Your task to perform on an android device: set the stopwatch Image 0: 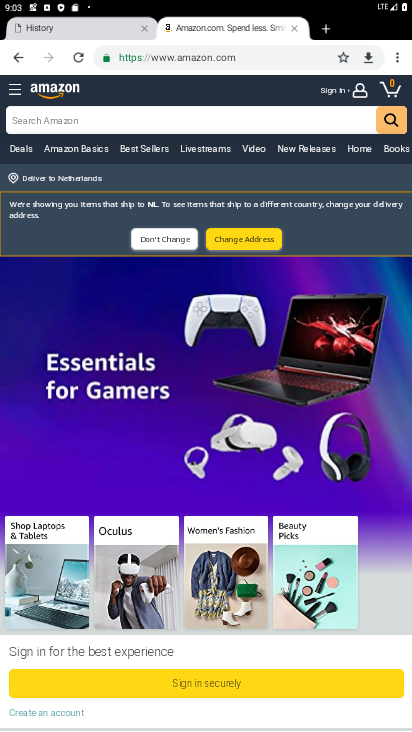
Step 0: press home button
Your task to perform on an android device: set the stopwatch Image 1: 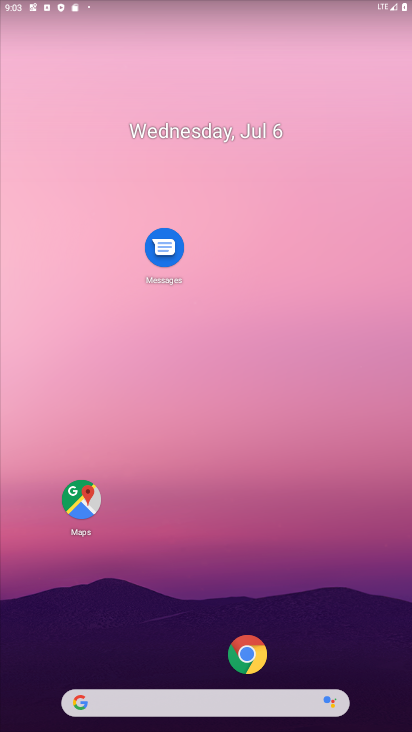
Step 1: drag from (162, 641) to (265, 107)
Your task to perform on an android device: set the stopwatch Image 2: 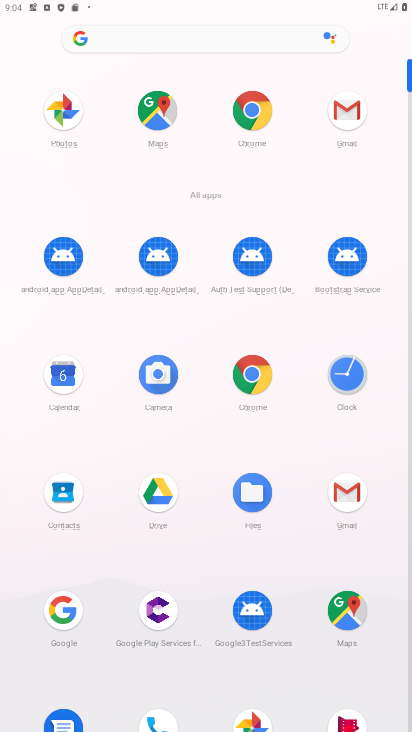
Step 2: drag from (210, 682) to (311, 147)
Your task to perform on an android device: set the stopwatch Image 3: 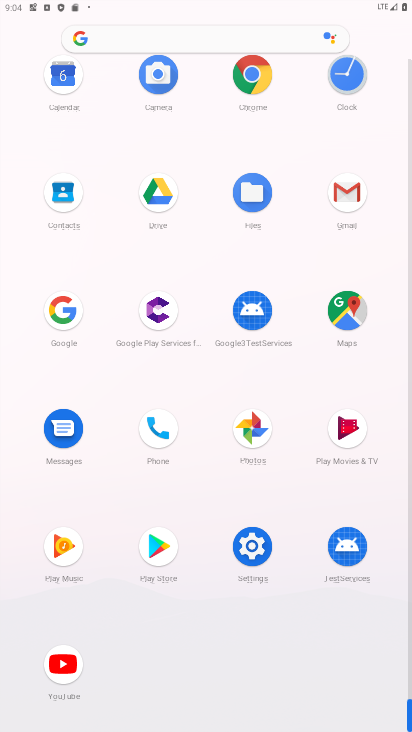
Step 3: click (248, 529)
Your task to perform on an android device: set the stopwatch Image 4: 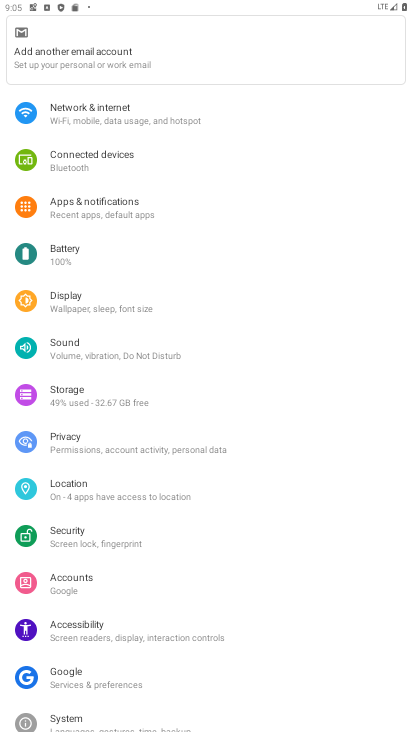
Step 4: press home button
Your task to perform on an android device: set the stopwatch Image 5: 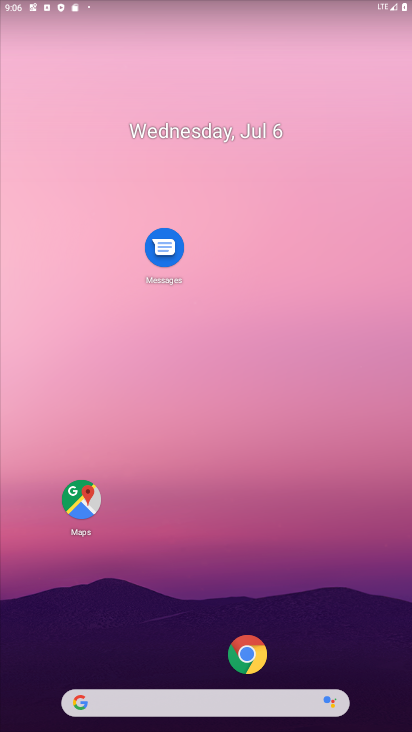
Step 5: drag from (185, 649) to (187, 98)
Your task to perform on an android device: set the stopwatch Image 6: 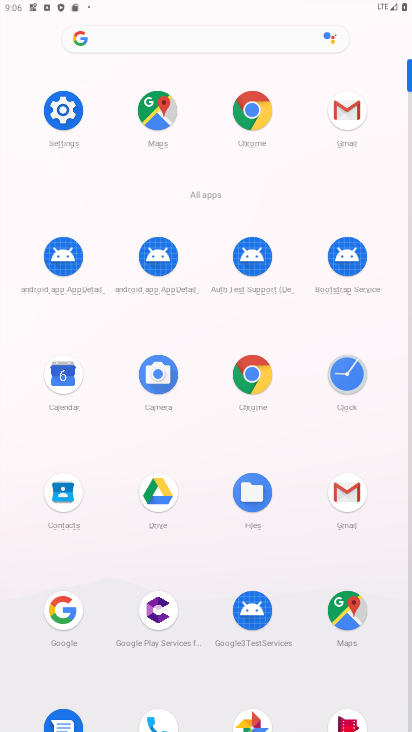
Step 6: click (334, 356)
Your task to perform on an android device: set the stopwatch Image 7: 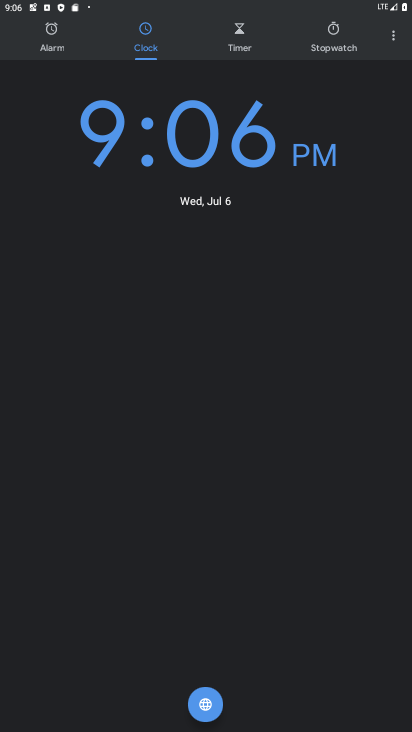
Step 7: click (339, 40)
Your task to perform on an android device: set the stopwatch Image 8: 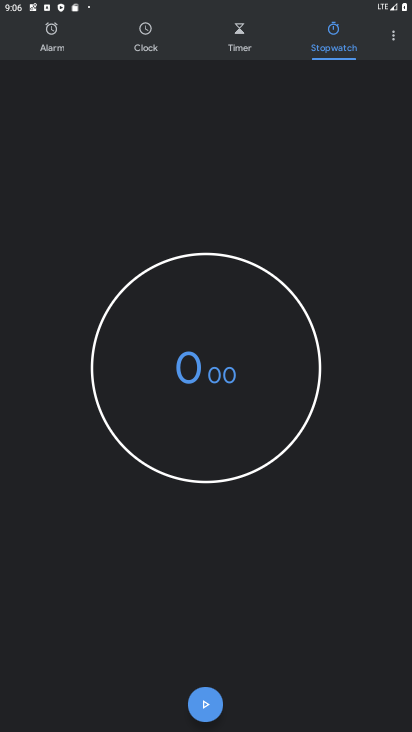
Step 8: click (207, 706)
Your task to perform on an android device: set the stopwatch Image 9: 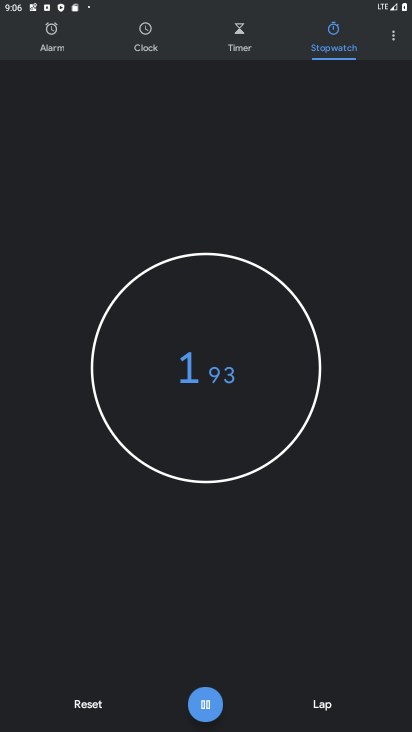
Step 9: task complete